Your task to perform on an android device: Open privacy settings Image 0: 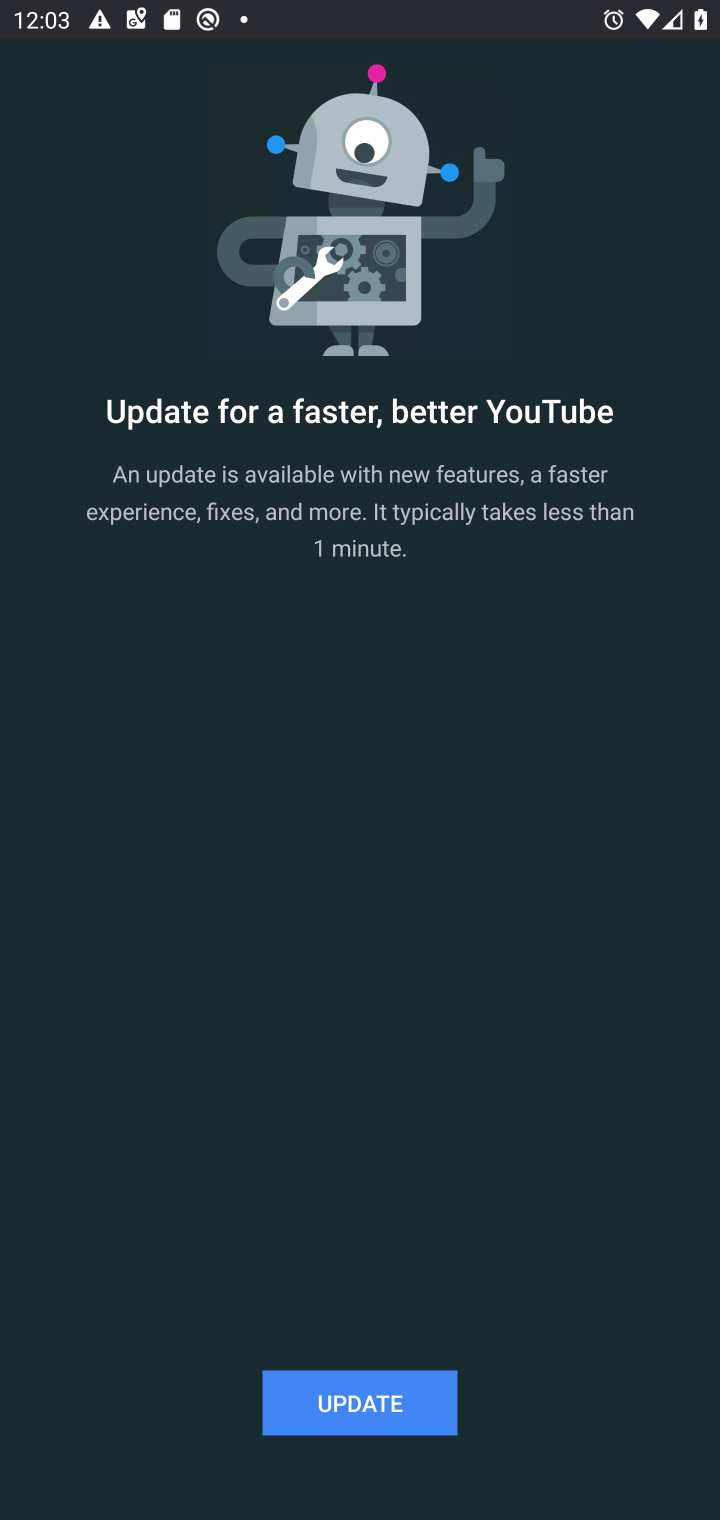
Step 0: press home button
Your task to perform on an android device: Open privacy settings Image 1: 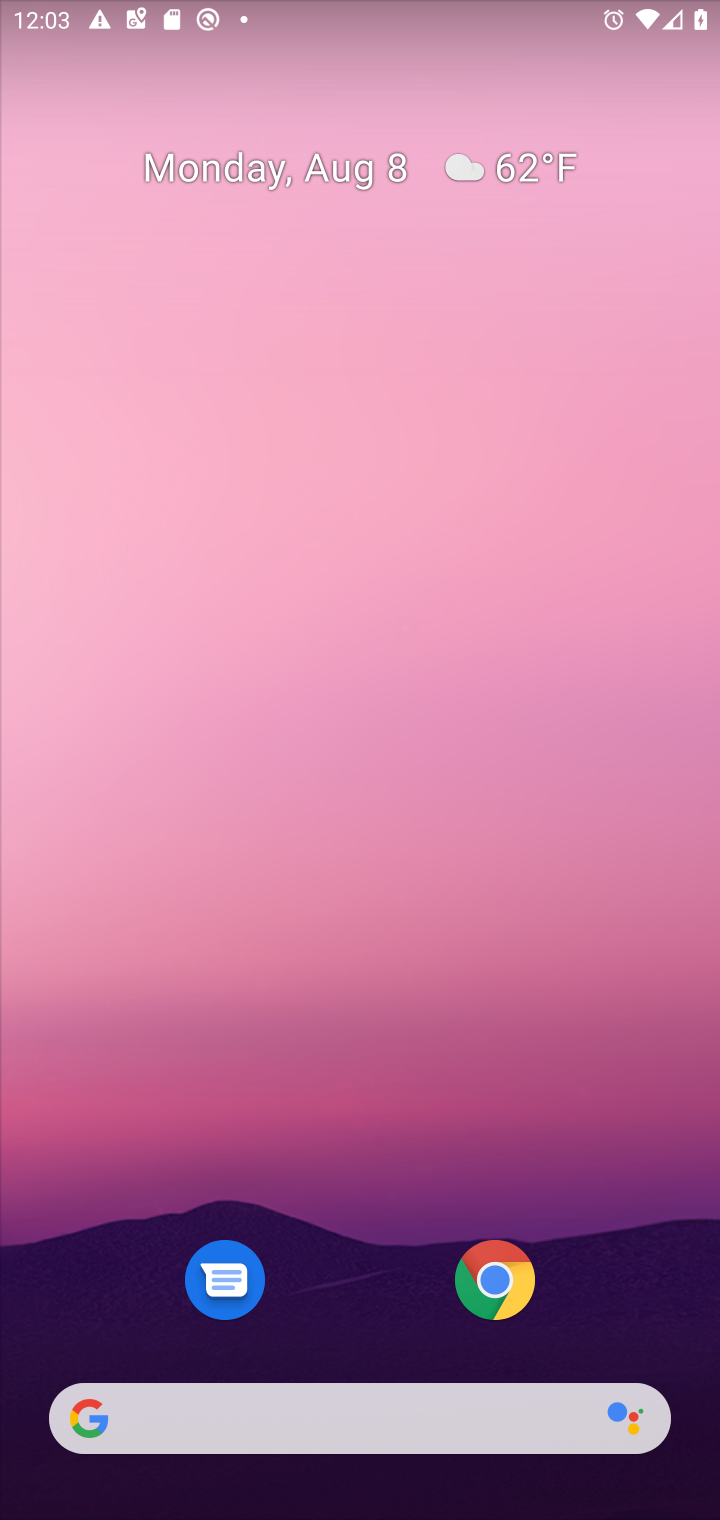
Step 1: drag from (374, 968) to (374, 188)
Your task to perform on an android device: Open privacy settings Image 2: 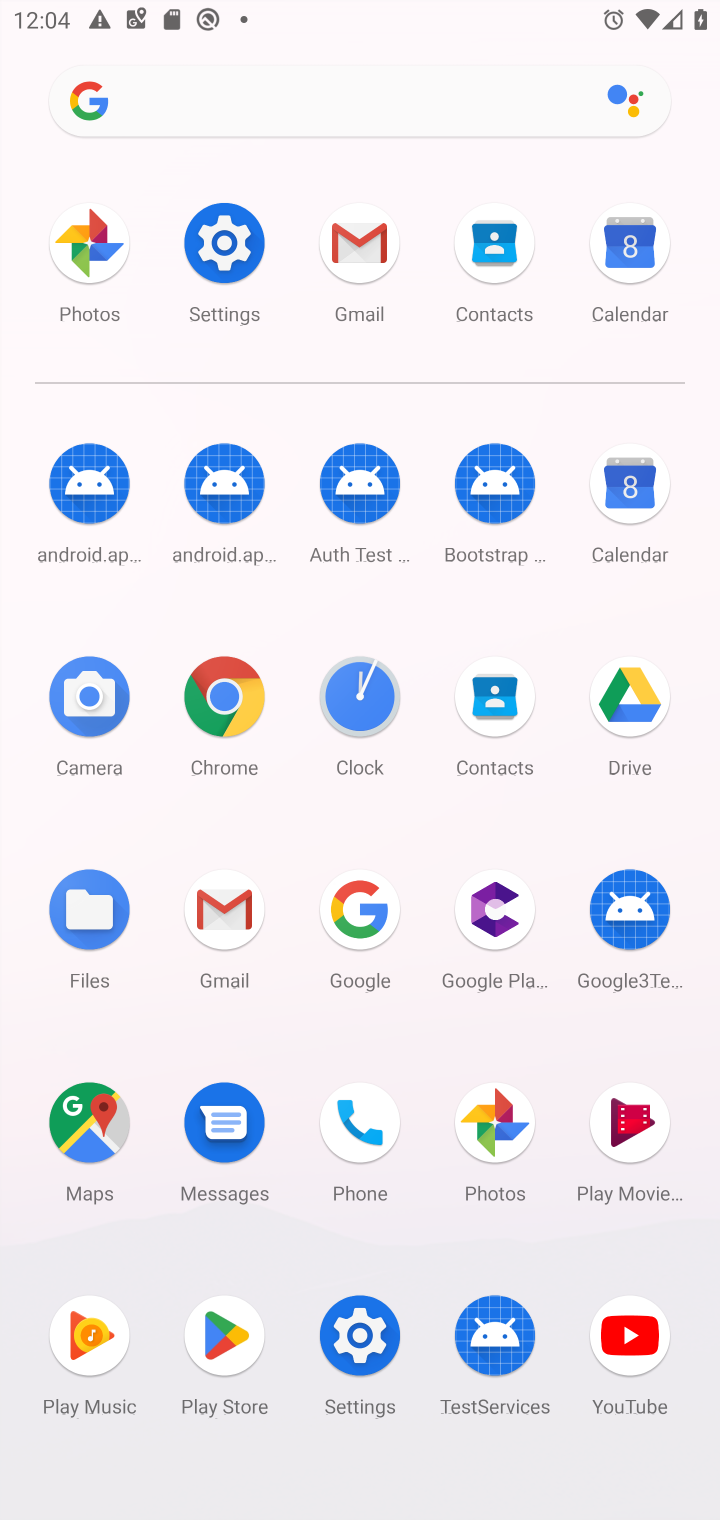
Step 2: click (227, 231)
Your task to perform on an android device: Open privacy settings Image 3: 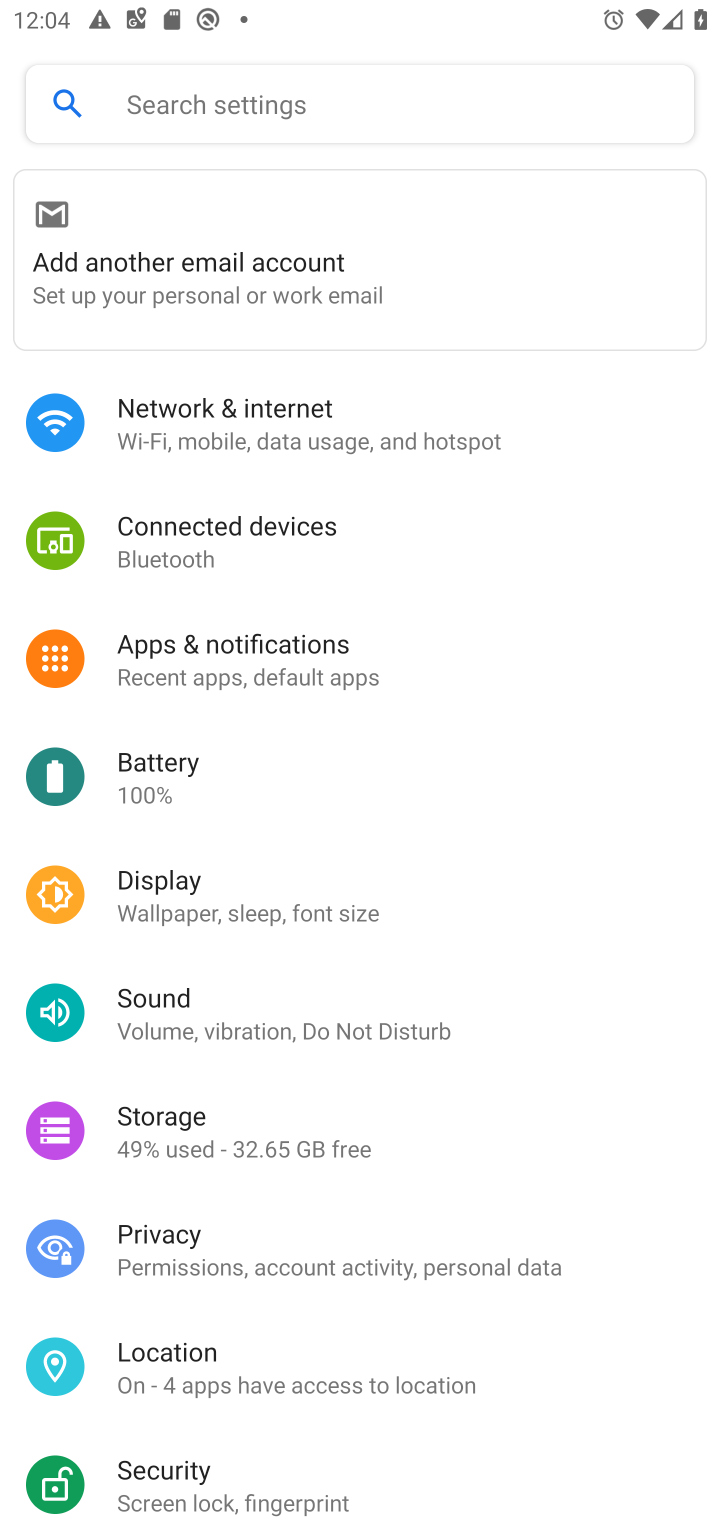
Step 3: click (164, 1231)
Your task to perform on an android device: Open privacy settings Image 4: 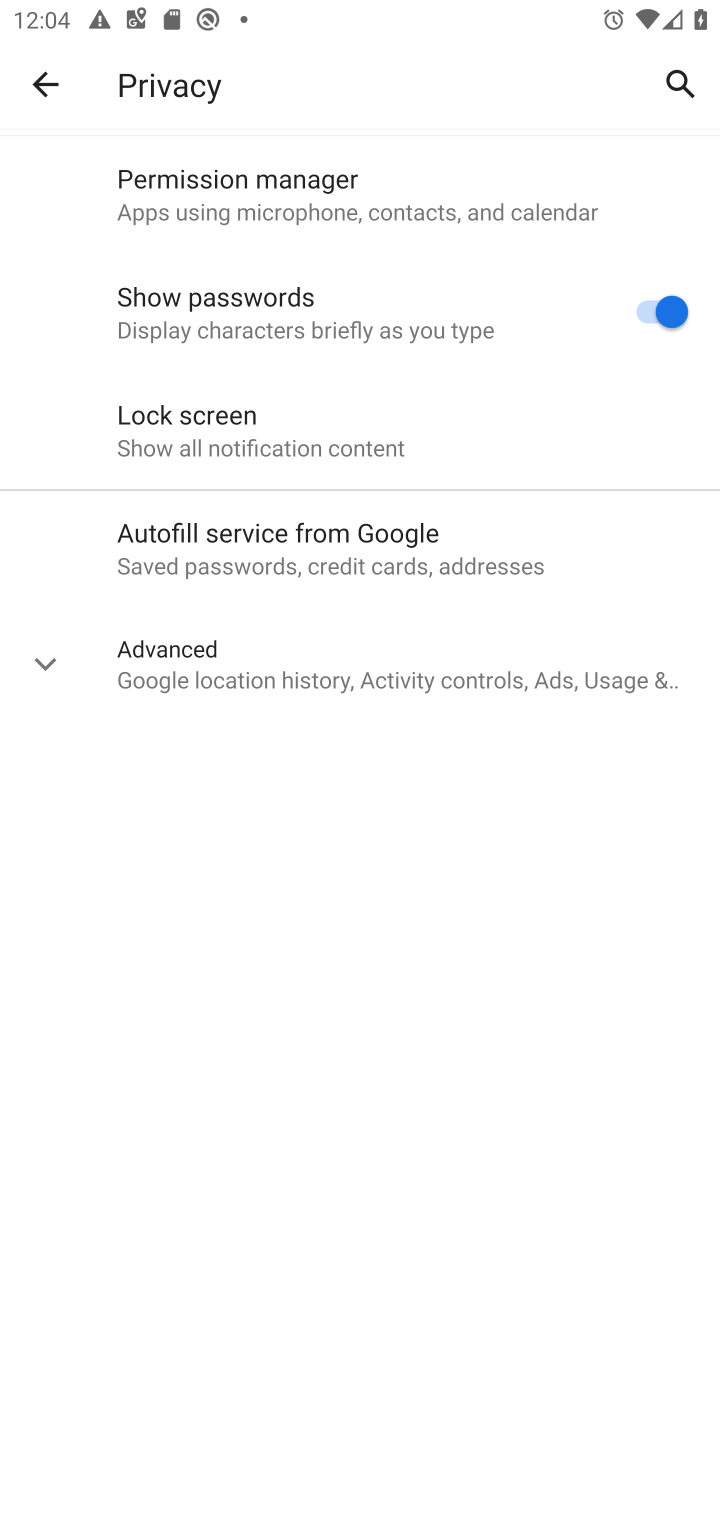
Step 4: task complete